Your task to perform on an android device: Go to notification settings Image 0: 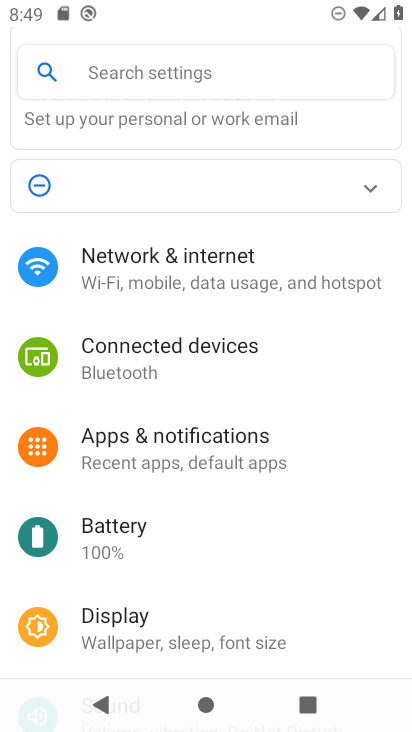
Step 0: click (247, 448)
Your task to perform on an android device: Go to notification settings Image 1: 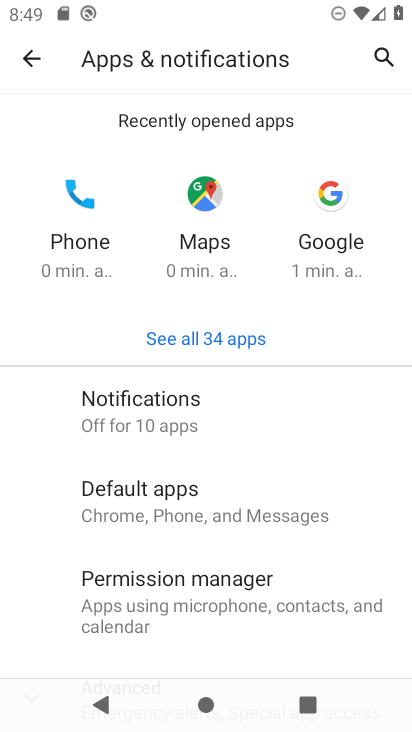
Step 1: task complete